Your task to perform on an android device: allow cookies in the chrome app Image 0: 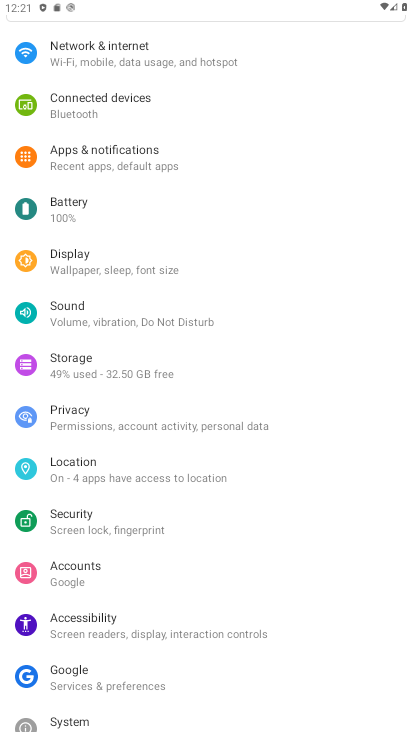
Step 0: task complete